Your task to perform on an android device: change timer sound Image 0: 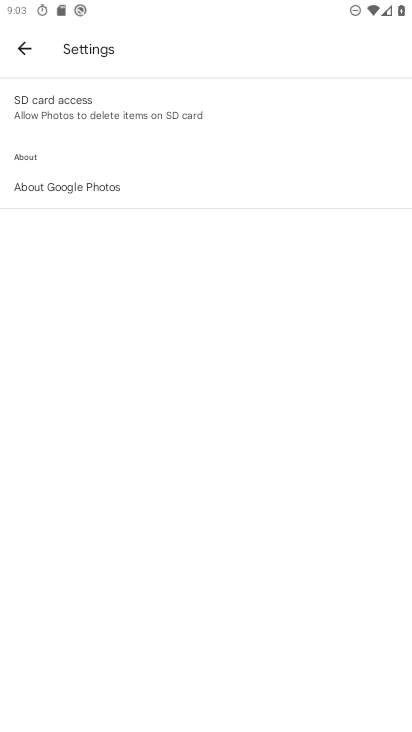
Step 0: press home button
Your task to perform on an android device: change timer sound Image 1: 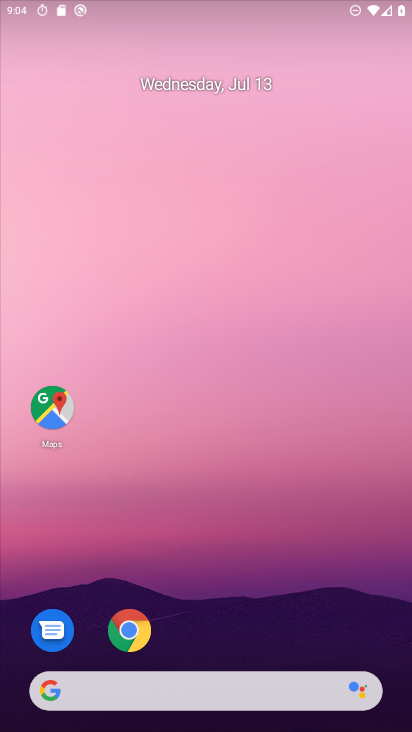
Step 1: drag from (376, 629) to (236, 52)
Your task to perform on an android device: change timer sound Image 2: 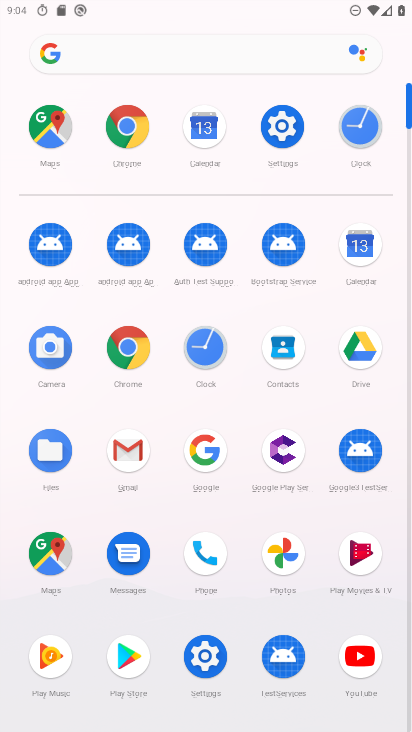
Step 2: click (183, 355)
Your task to perform on an android device: change timer sound Image 3: 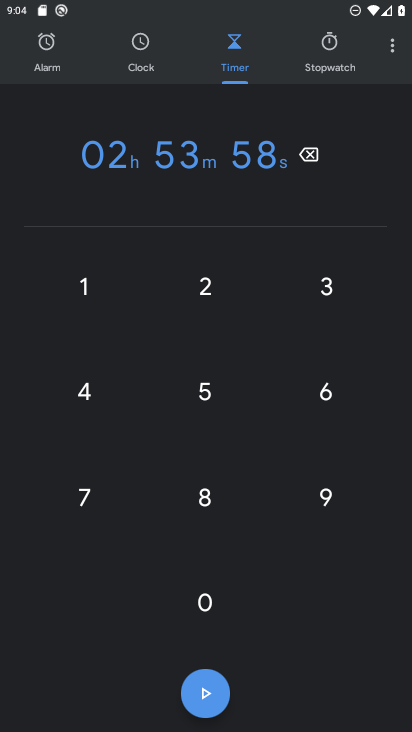
Step 3: click (381, 49)
Your task to perform on an android device: change timer sound Image 4: 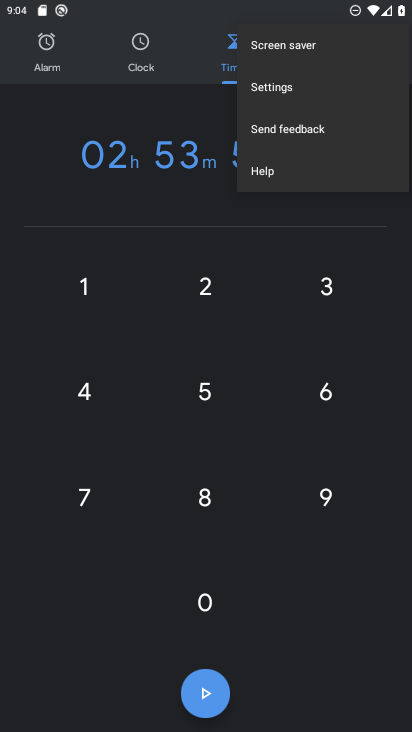
Step 4: click (273, 80)
Your task to perform on an android device: change timer sound Image 5: 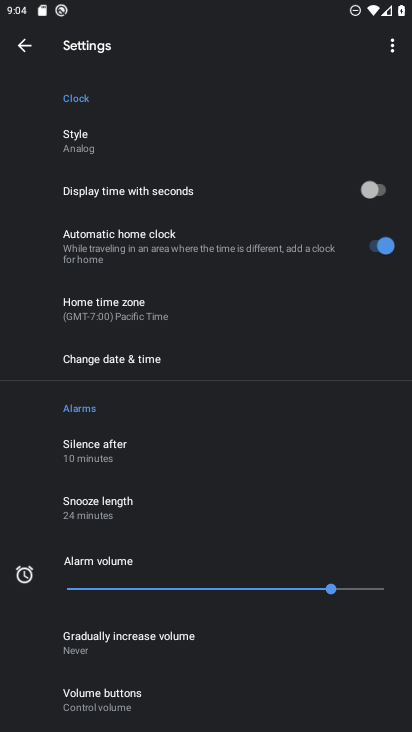
Step 5: drag from (99, 415) to (70, 164)
Your task to perform on an android device: change timer sound Image 6: 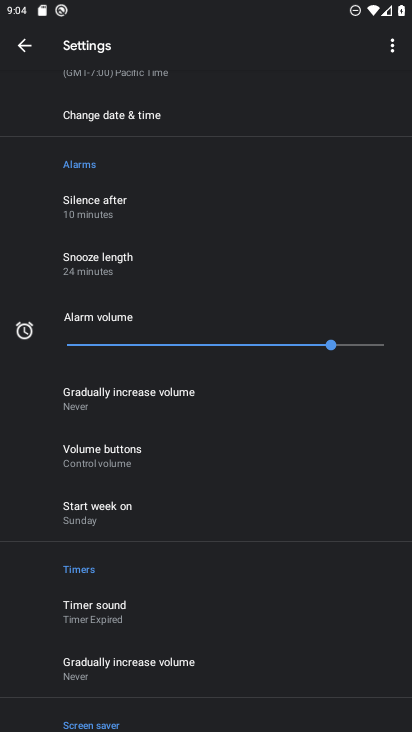
Step 6: click (105, 607)
Your task to perform on an android device: change timer sound Image 7: 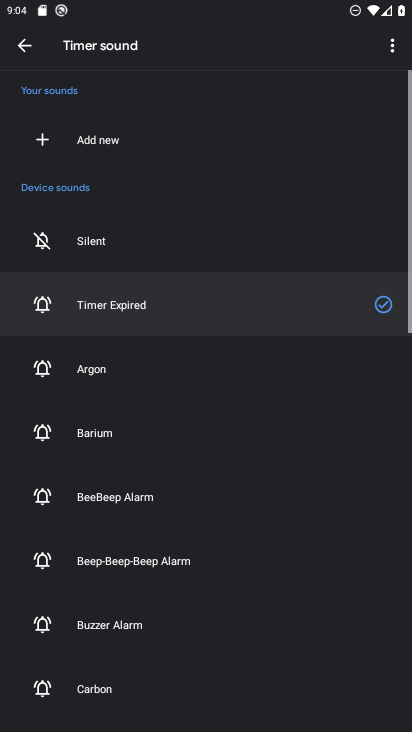
Step 7: click (137, 438)
Your task to perform on an android device: change timer sound Image 8: 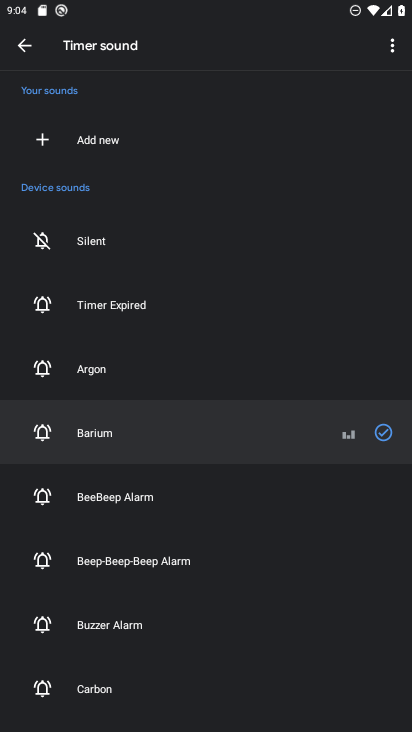
Step 8: task complete